Your task to perform on an android device: choose inbox layout in the gmail app Image 0: 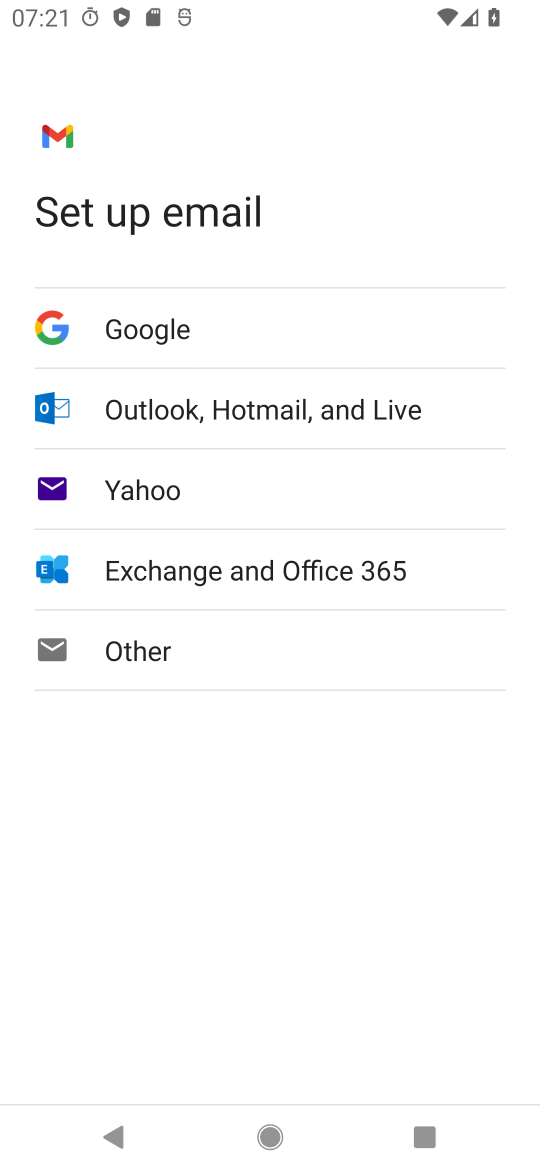
Step 0: press home button
Your task to perform on an android device: choose inbox layout in the gmail app Image 1: 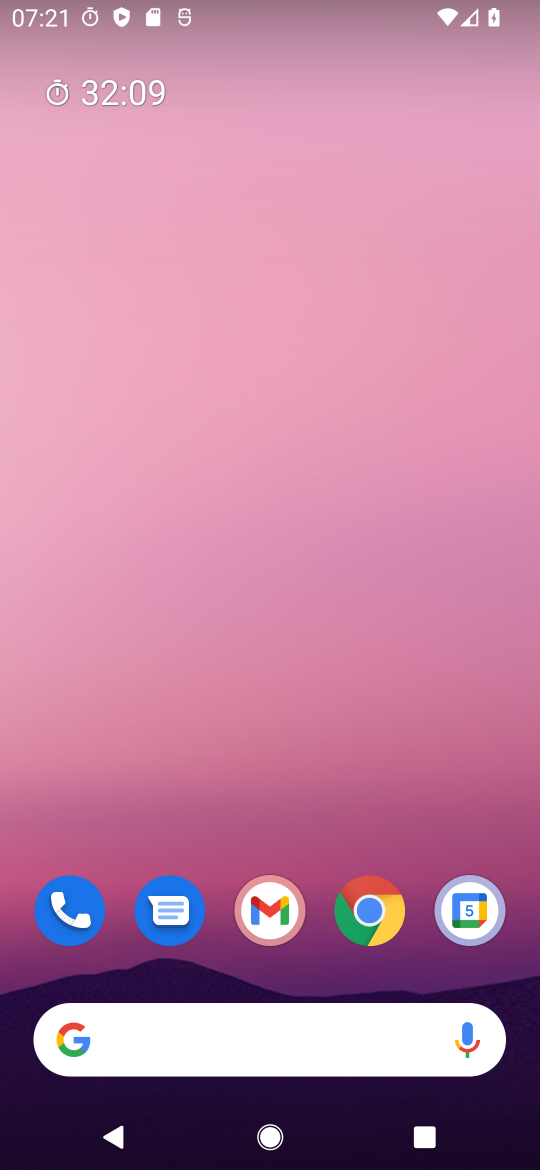
Step 1: drag from (261, 1016) to (278, 120)
Your task to perform on an android device: choose inbox layout in the gmail app Image 2: 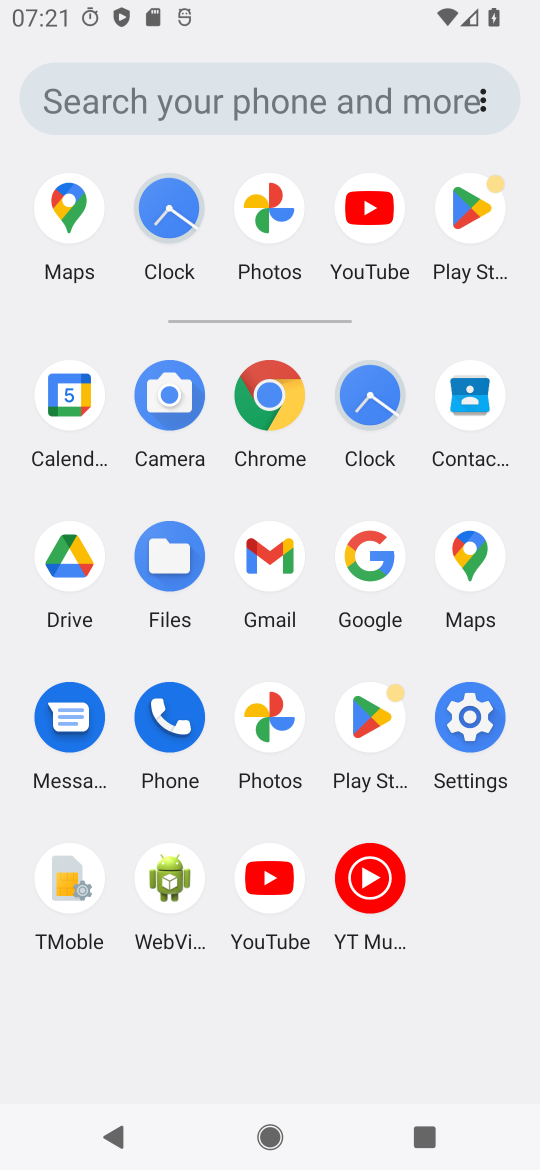
Step 2: click (283, 570)
Your task to perform on an android device: choose inbox layout in the gmail app Image 3: 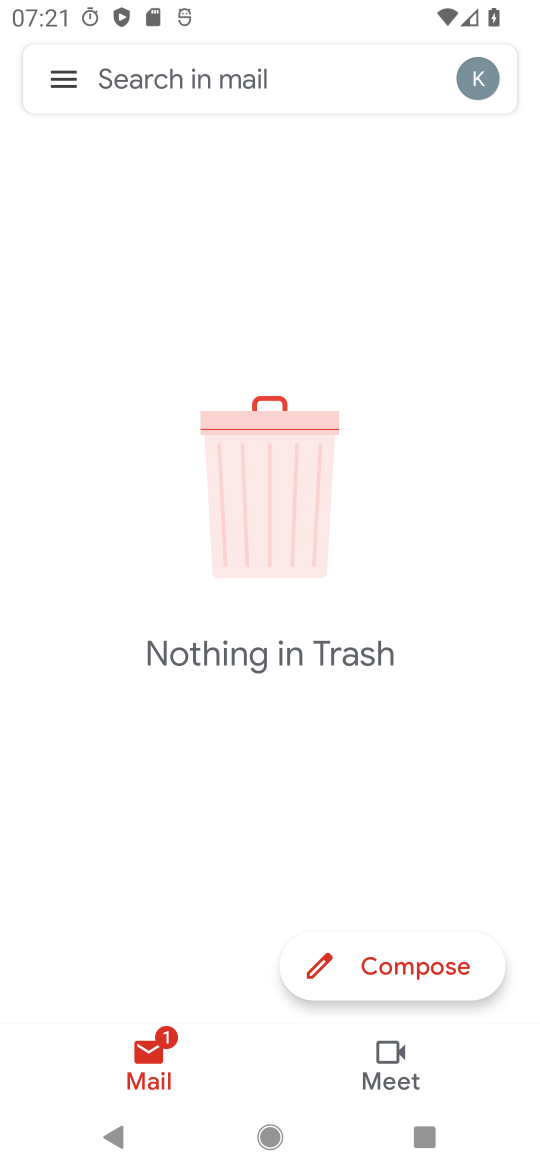
Step 3: click (72, 84)
Your task to perform on an android device: choose inbox layout in the gmail app Image 4: 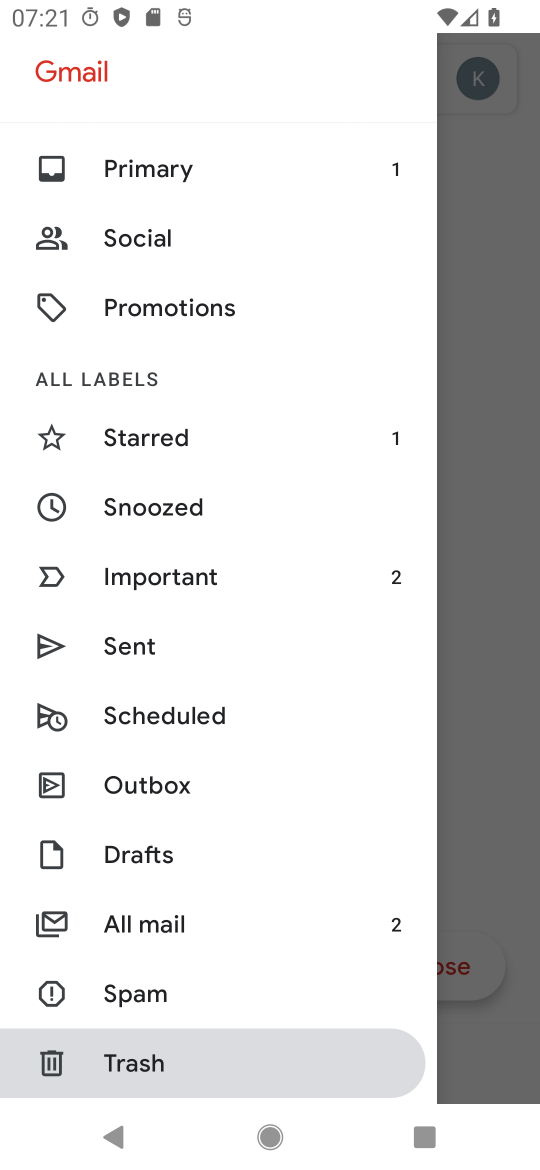
Step 4: drag from (231, 980) to (255, 299)
Your task to perform on an android device: choose inbox layout in the gmail app Image 5: 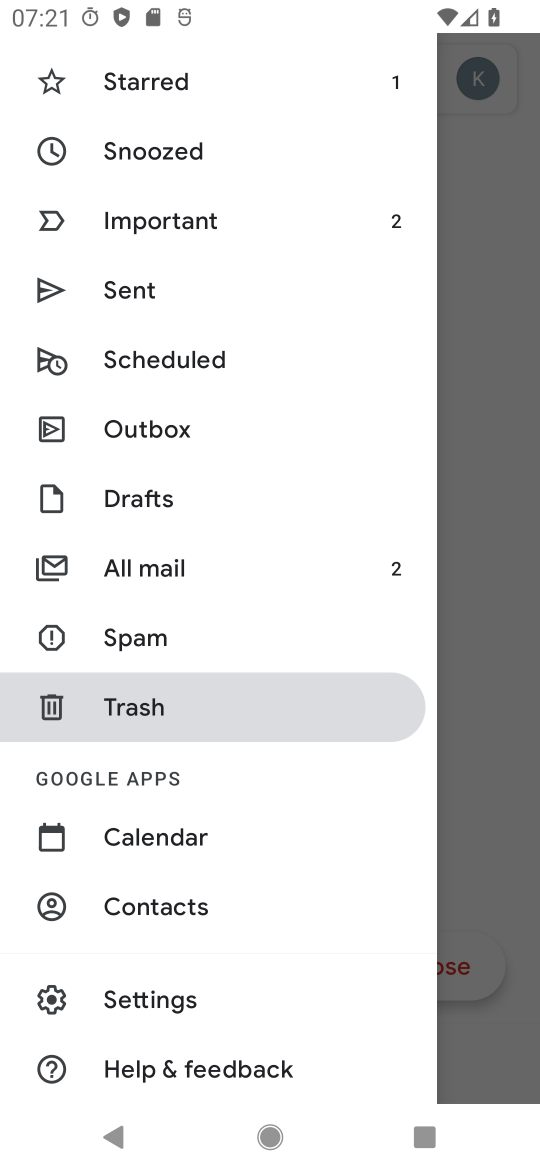
Step 5: click (198, 997)
Your task to perform on an android device: choose inbox layout in the gmail app Image 6: 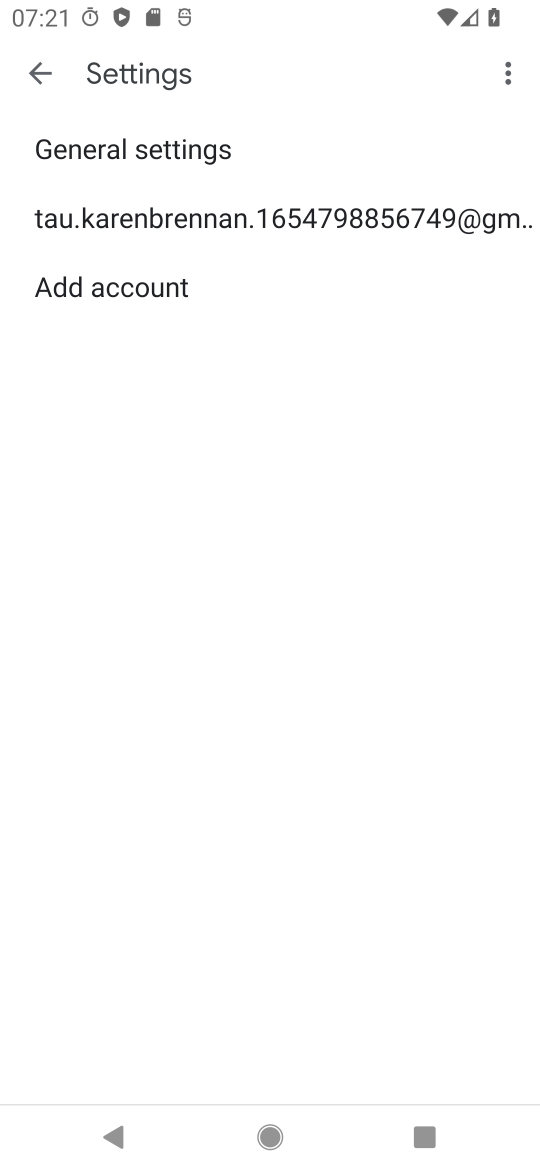
Step 6: click (232, 218)
Your task to perform on an android device: choose inbox layout in the gmail app Image 7: 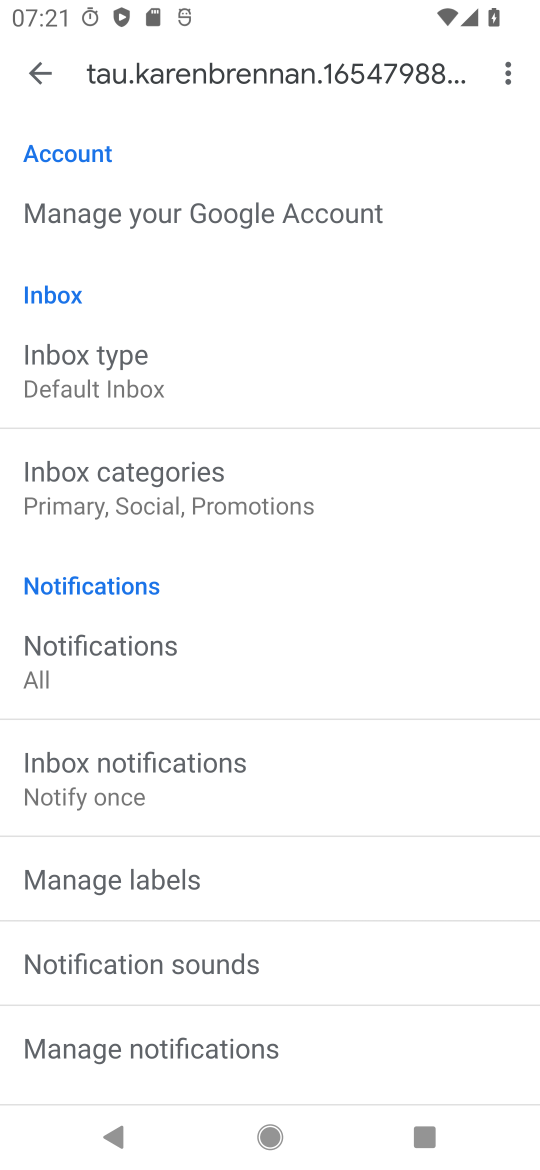
Step 7: click (165, 389)
Your task to perform on an android device: choose inbox layout in the gmail app Image 8: 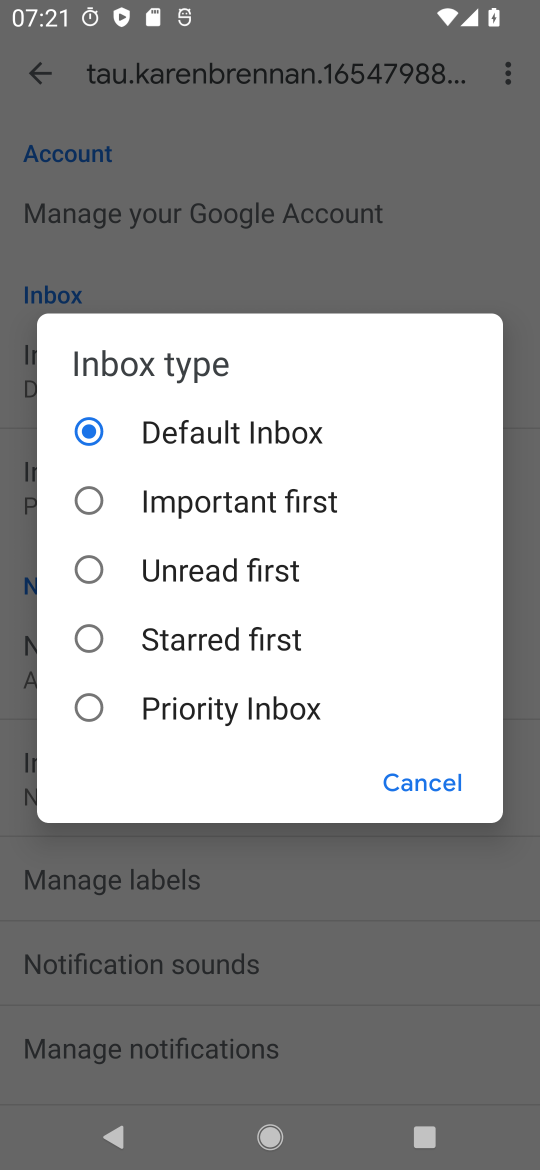
Step 8: click (91, 716)
Your task to perform on an android device: choose inbox layout in the gmail app Image 9: 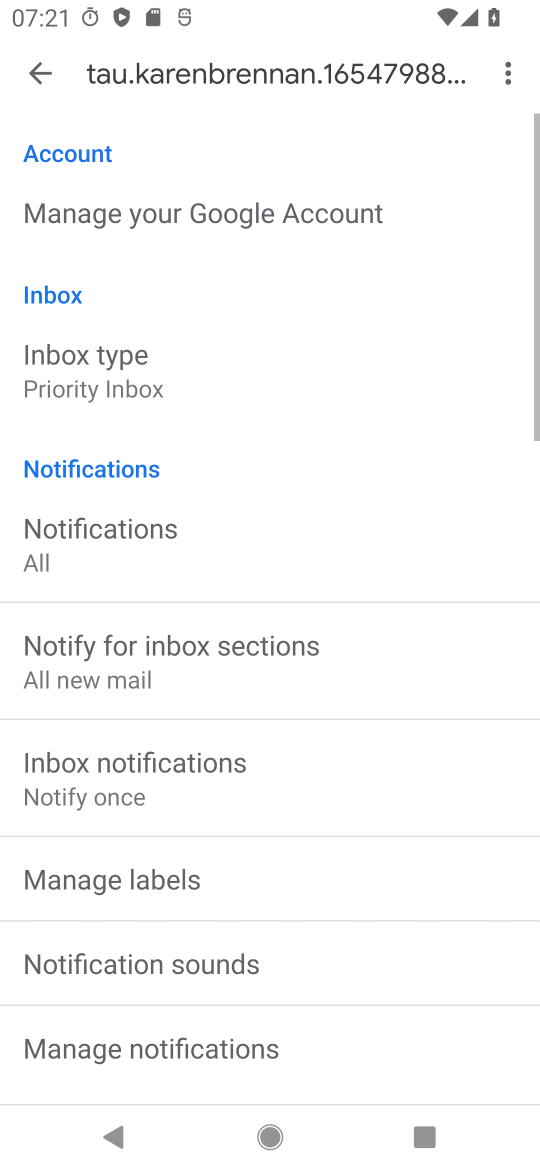
Step 9: task complete